Your task to perform on an android device: Turn off the flashlight Image 0: 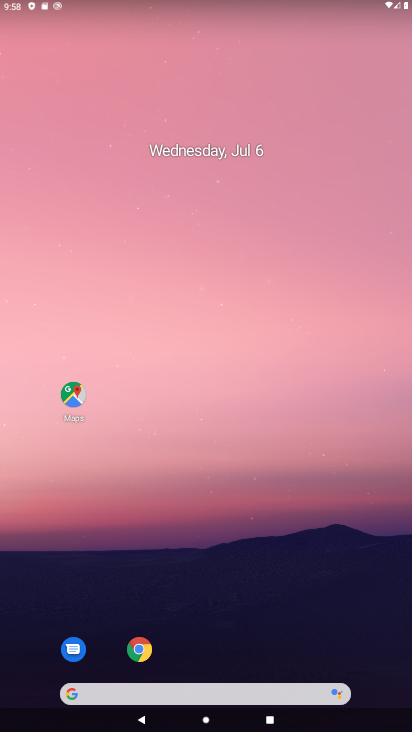
Step 0: drag from (351, 605) to (331, 173)
Your task to perform on an android device: Turn off the flashlight Image 1: 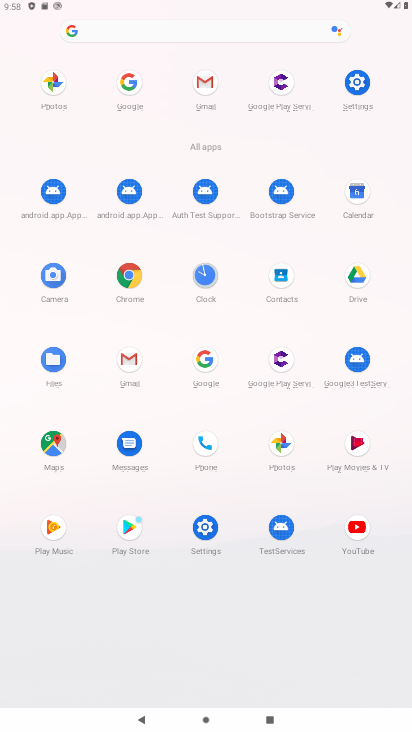
Step 1: click (352, 89)
Your task to perform on an android device: Turn off the flashlight Image 2: 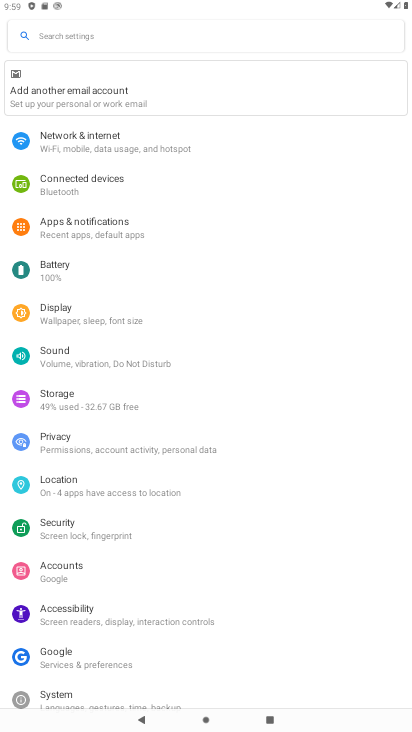
Step 2: drag from (95, 593) to (132, 559)
Your task to perform on an android device: Turn off the flashlight Image 3: 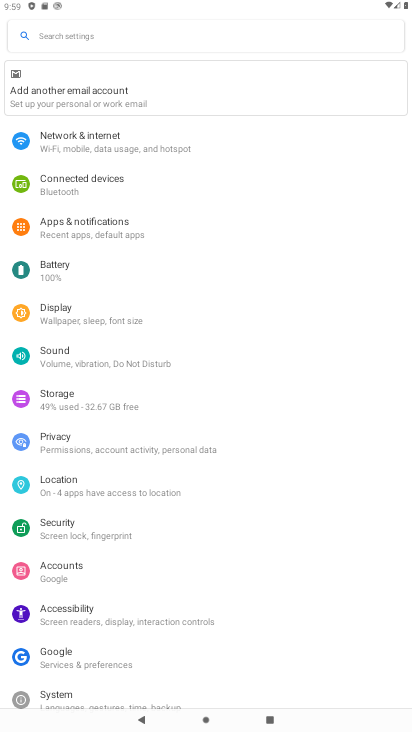
Step 3: click (100, 41)
Your task to perform on an android device: Turn off the flashlight Image 4: 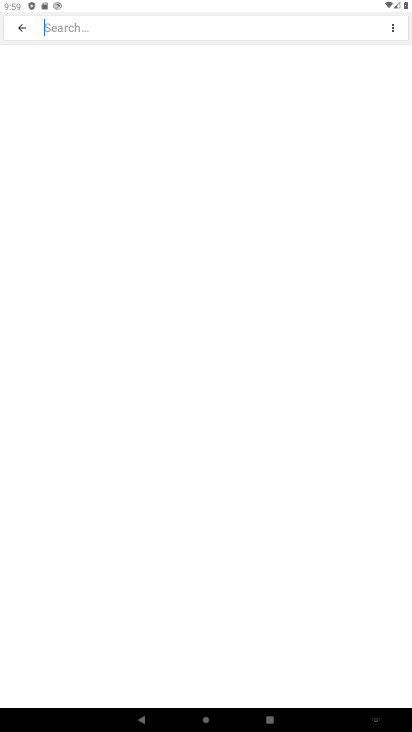
Step 4: type "flashlight"
Your task to perform on an android device: Turn off the flashlight Image 5: 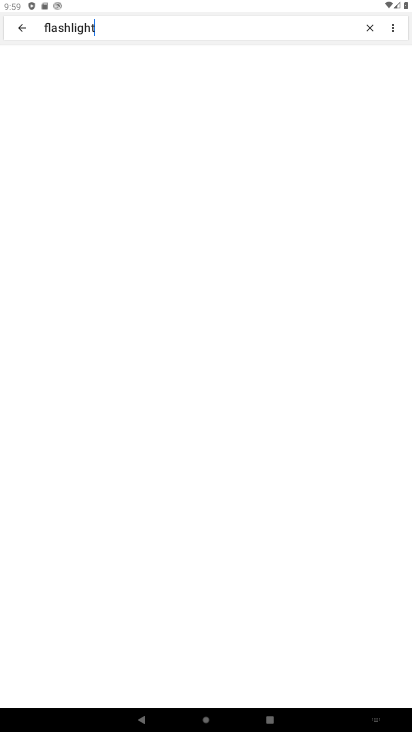
Step 5: click (122, 21)
Your task to perform on an android device: Turn off the flashlight Image 6: 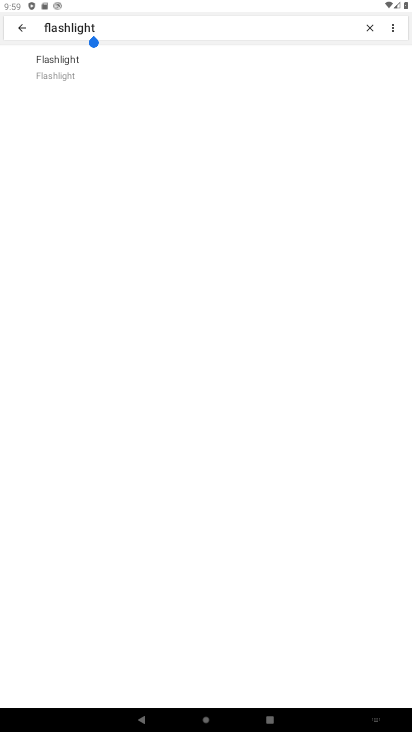
Step 6: click (70, 67)
Your task to perform on an android device: Turn off the flashlight Image 7: 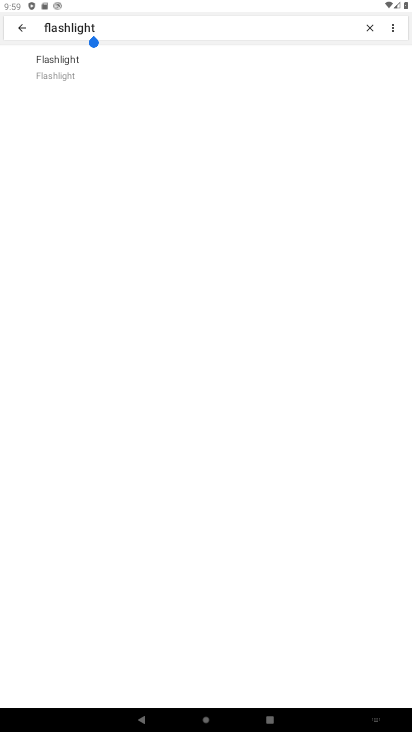
Step 7: click (56, 69)
Your task to perform on an android device: Turn off the flashlight Image 8: 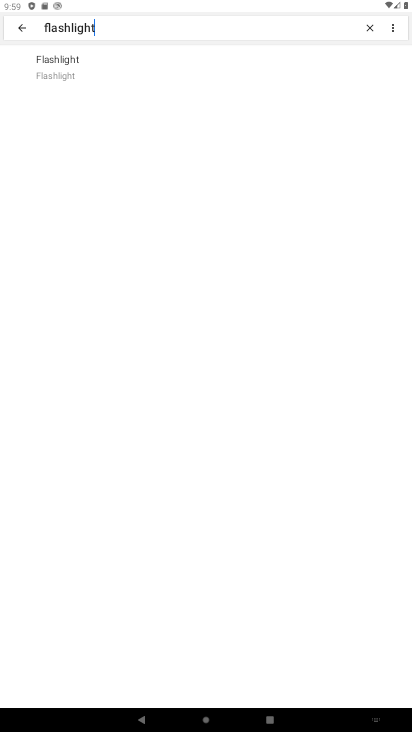
Step 8: task complete